Your task to perform on an android device: find snoozed emails in the gmail app Image 0: 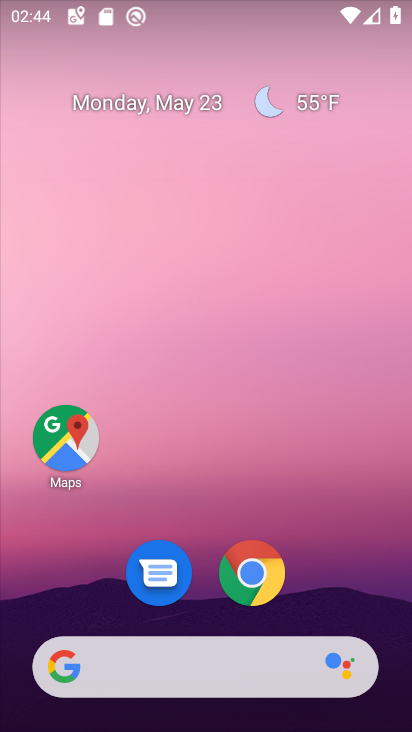
Step 0: drag from (359, 567) to (345, 143)
Your task to perform on an android device: find snoozed emails in the gmail app Image 1: 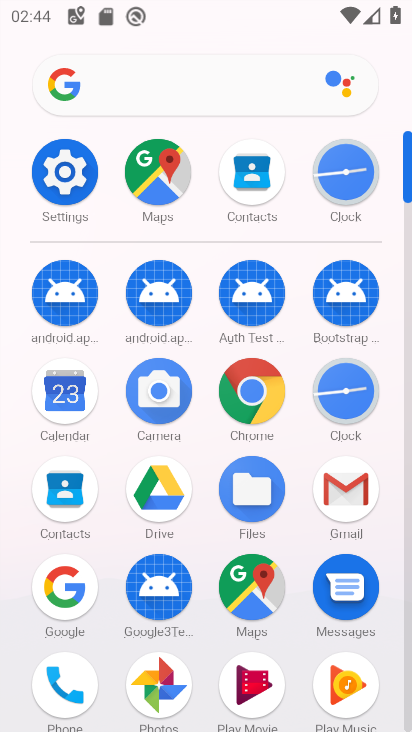
Step 1: click (342, 495)
Your task to perform on an android device: find snoozed emails in the gmail app Image 2: 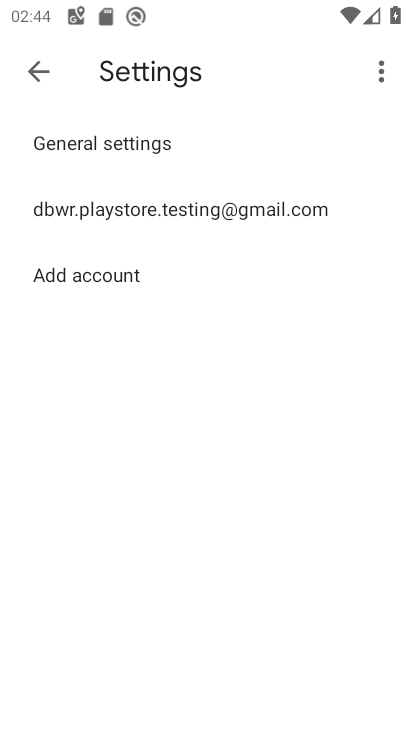
Step 2: press back button
Your task to perform on an android device: find snoozed emails in the gmail app Image 3: 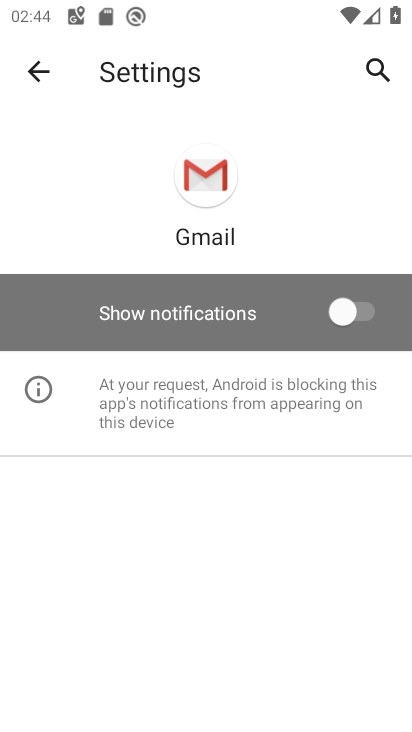
Step 3: press back button
Your task to perform on an android device: find snoozed emails in the gmail app Image 4: 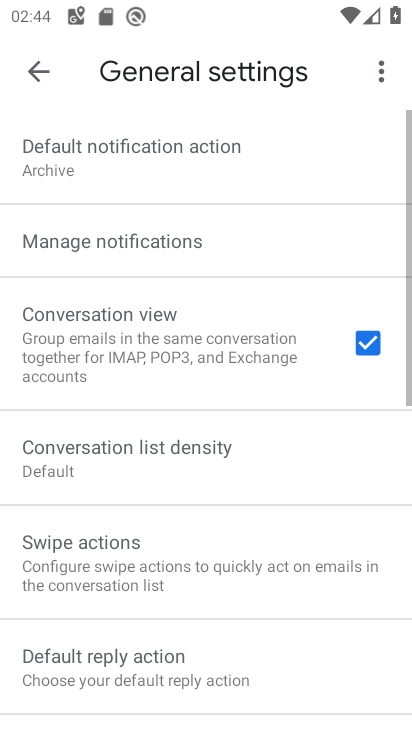
Step 4: press back button
Your task to perform on an android device: find snoozed emails in the gmail app Image 5: 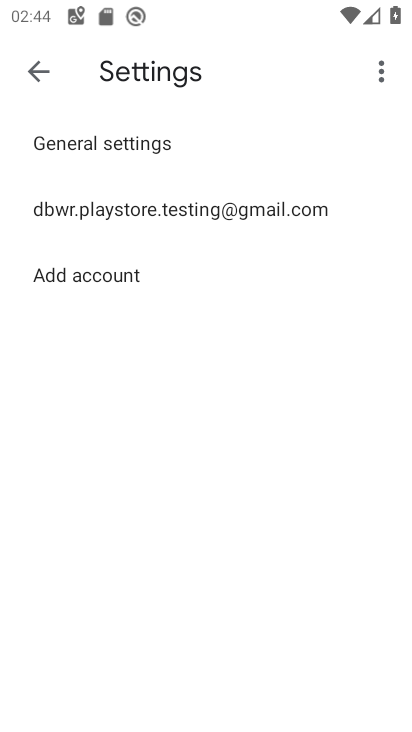
Step 5: press back button
Your task to perform on an android device: find snoozed emails in the gmail app Image 6: 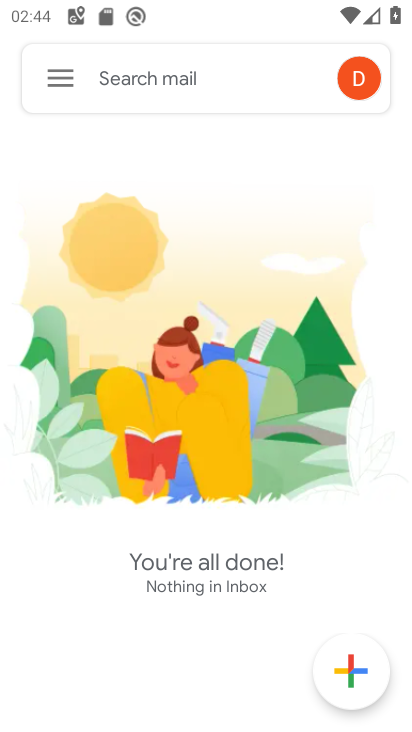
Step 6: click (69, 77)
Your task to perform on an android device: find snoozed emails in the gmail app Image 7: 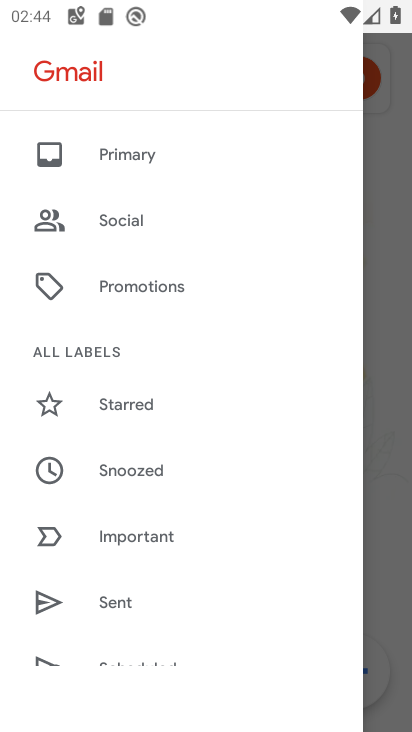
Step 7: drag from (205, 596) to (219, 278)
Your task to perform on an android device: find snoozed emails in the gmail app Image 8: 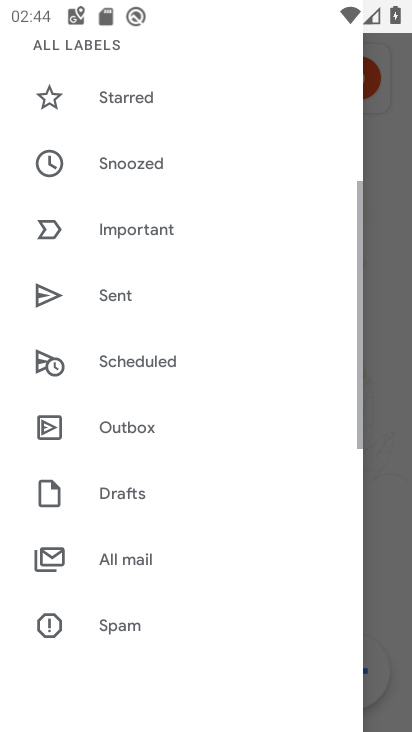
Step 8: click (192, 170)
Your task to perform on an android device: find snoozed emails in the gmail app Image 9: 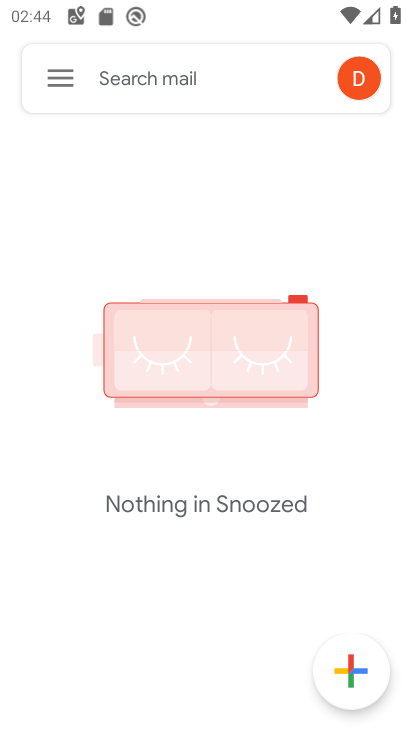
Step 9: task complete